Your task to perform on an android device: Go to Maps Image 0: 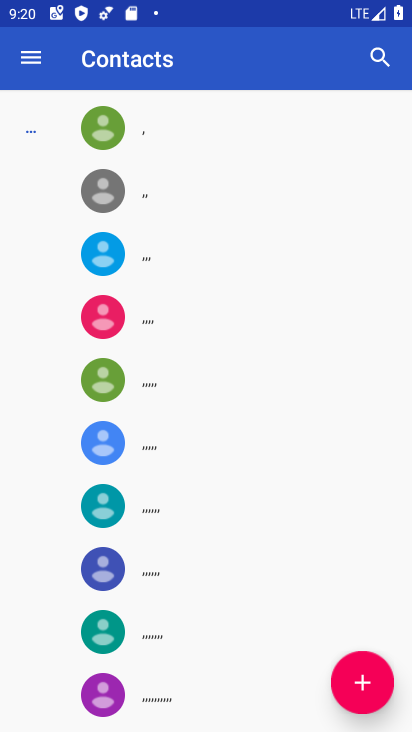
Step 0: press home button
Your task to perform on an android device: Go to Maps Image 1: 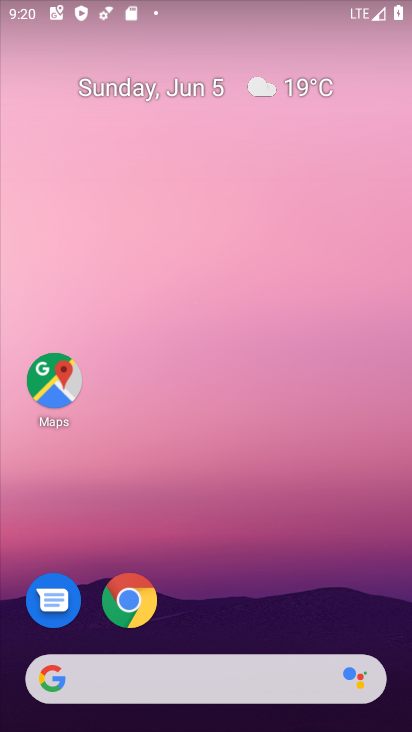
Step 1: click (56, 401)
Your task to perform on an android device: Go to Maps Image 2: 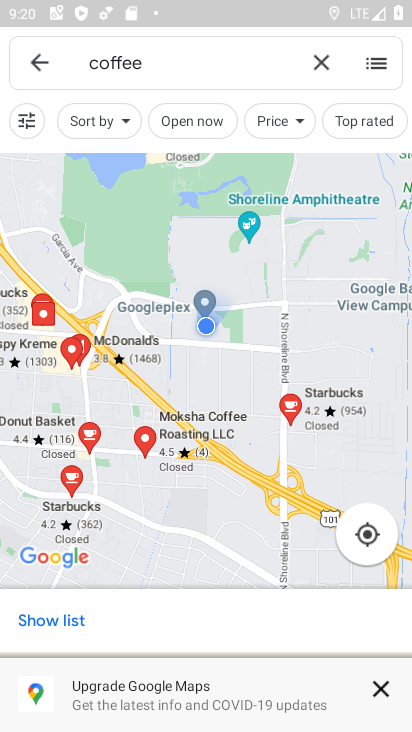
Step 2: task complete